Your task to perform on an android device: turn on the 24-hour format for clock Image 0: 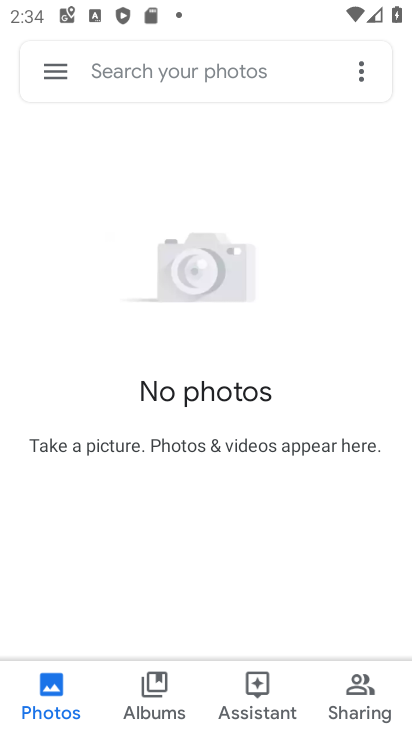
Step 0: press home button
Your task to perform on an android device: turn on the 24-hour format for clock Image 1: 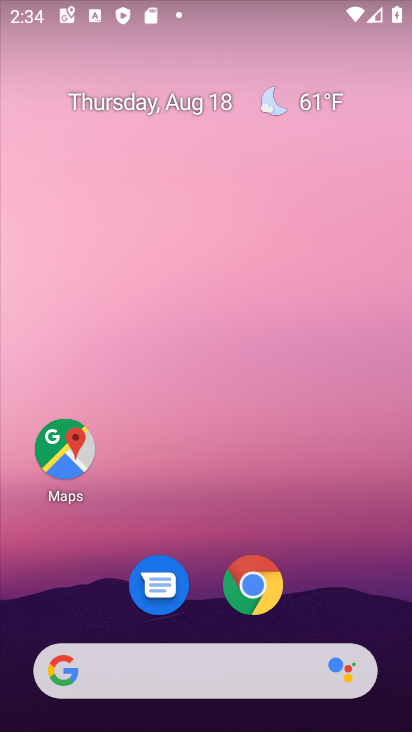
Step 1: drag from (333, 580) to (324, 18)
Your task to perform on an android device: turn on the 24-hour format for clock Image 2: 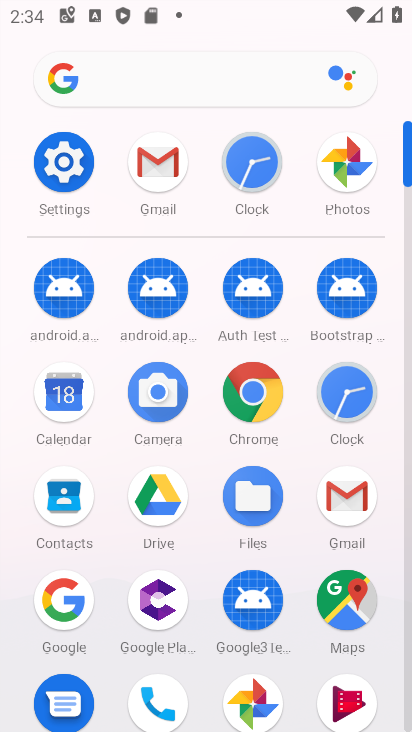
Step 2: click (256, 158)
Your task to perform on an android device: turn on the 24-hour format for clock Image 3: 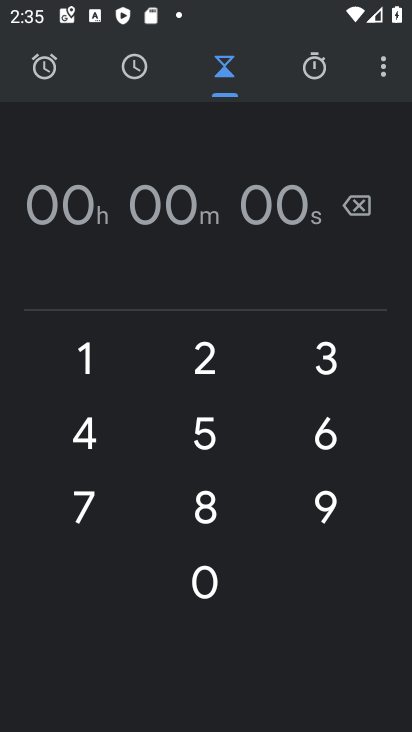
Step 3: click (386, 70)
Your task to perform on an android device: turn on the 24-hour format for clock Image 4: 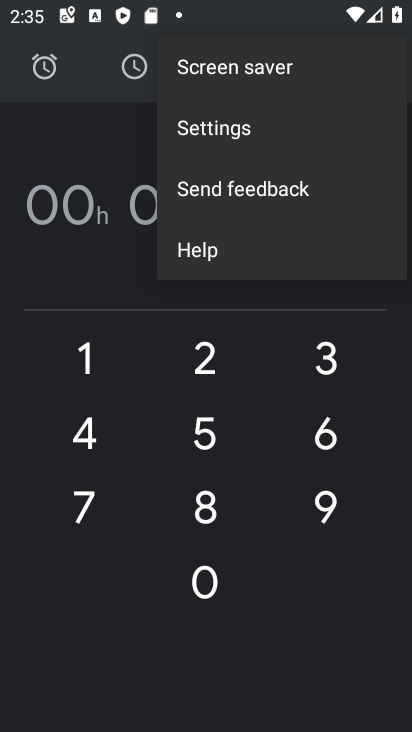
Step 4: click (238, 128)
Your task to perform on an android device: turn on the 24-hour format for clock Image 5: 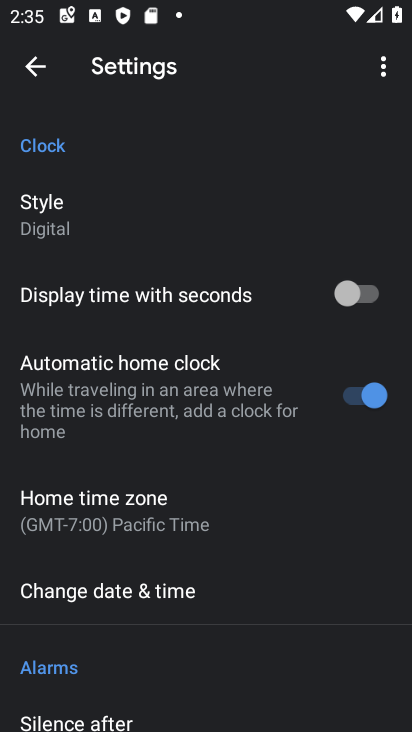
Step 5: drag from (228, 559) to (263, 391)
Your task to perform on an android device: turn on the 24-hour format for clock Image 6: 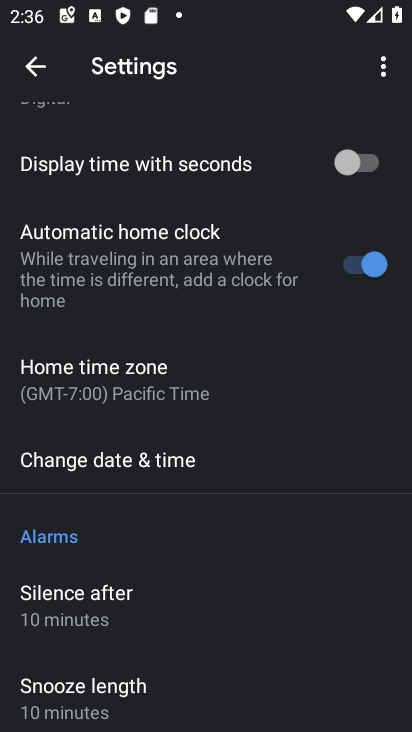
Step 6: click (273, 463)
Your task to perform on an android device: turn on the 24-hour format for clock Image 7: 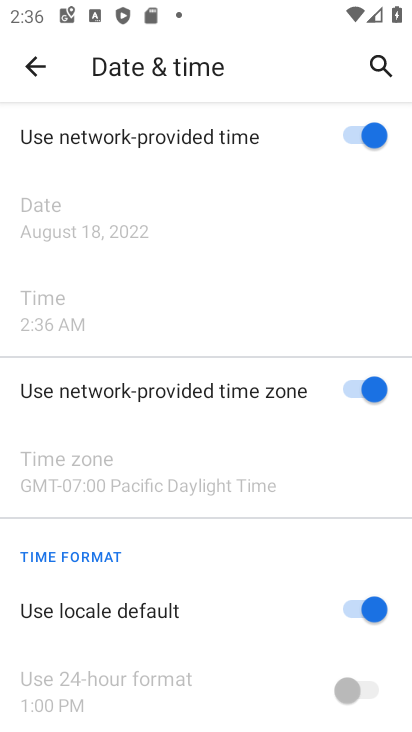
Step 7: click (361, 613)
Your task to perform on an android device: turn on the 24-hour format for clock Image 8: 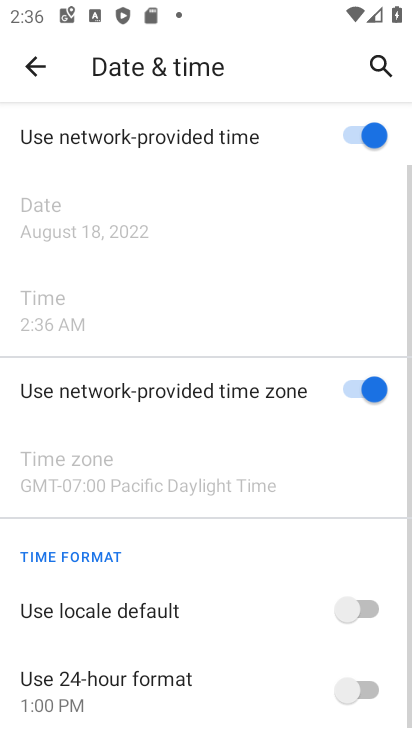
Step 8: click (365, 682)
Your task to perform on an android device: turn on the 24-hour format for clock Image 9: 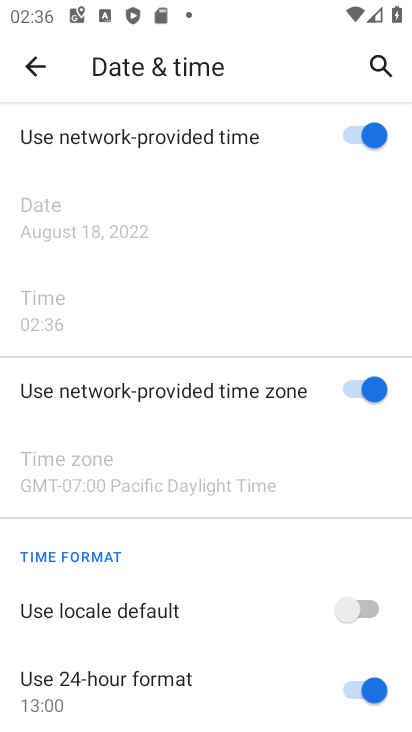
Step 9: task complete